Your task to perform on an android device: Toggle the flashlight Image 0: 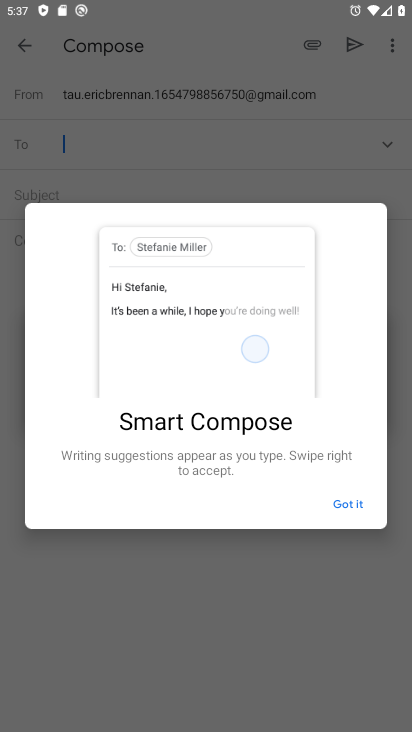
Step 0: press home button
Your task to perform on an android device: Toggle the flashlight Image 1: 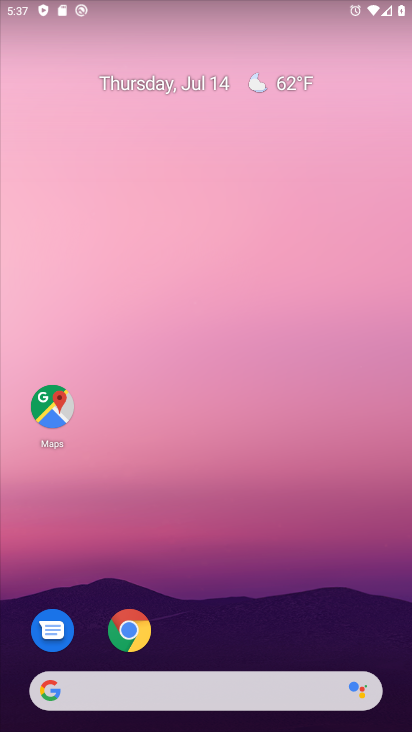
Step 1: drag from (205, 651) to (266, 8)
Your task to perform on an android device: Toggle the flashlight Image 2: 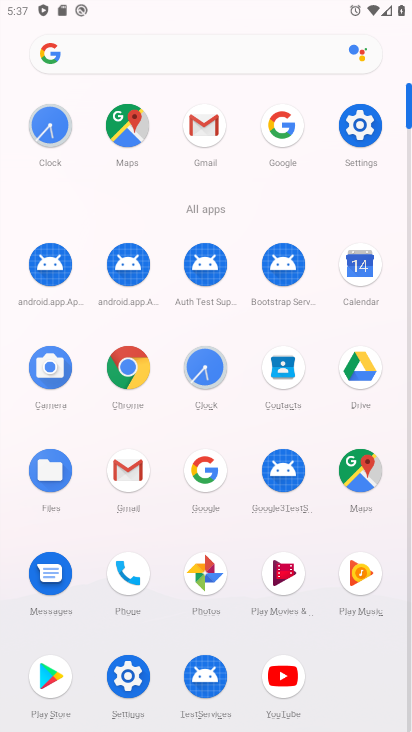
Step 2: click (357, 147)
Your task to perform on an android device: Toggle the flashlight Image 3: 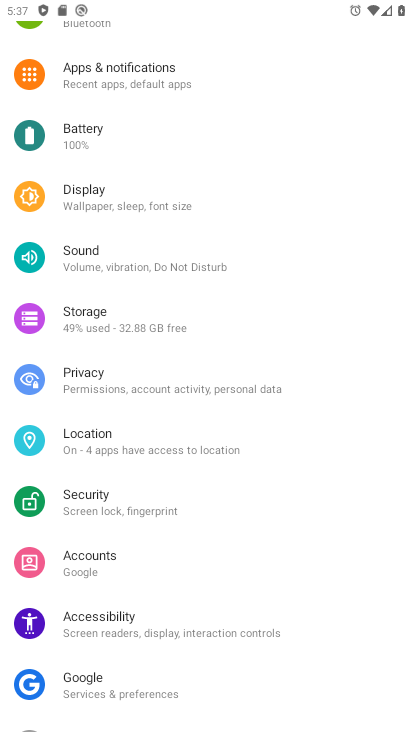
Step 3: task complete